Your task to perform on an android device: Do I have any events this weekend? Image 0: 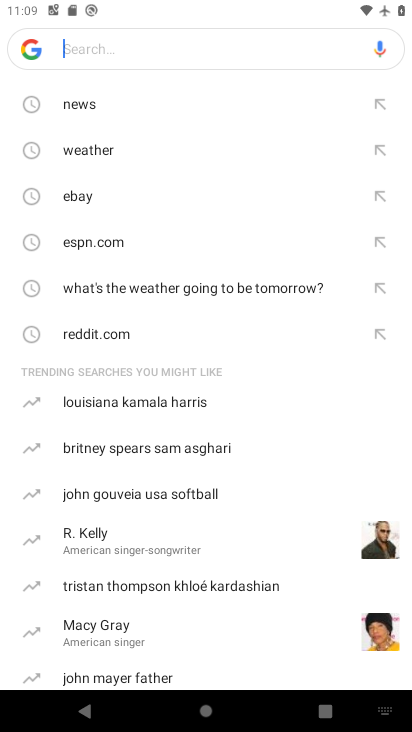
Step 0: press home button
Your task to perform on an android device: Do I have any events this weekend? Image 1: 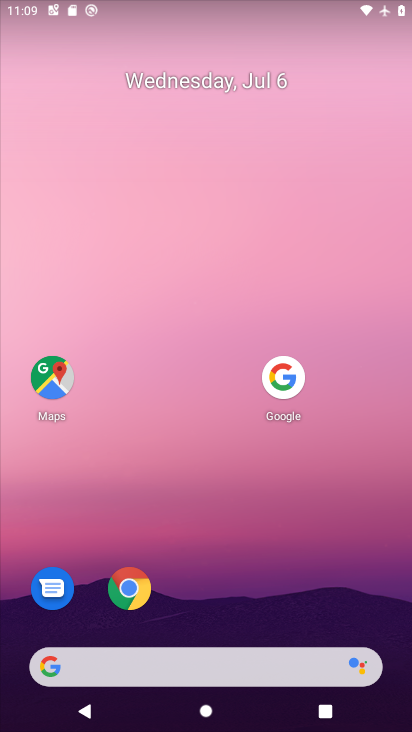
Step 1: drag from (206, 617) to (289, 48)
Your task to perform on an android device: Do I have any events this weekend? Image 2: 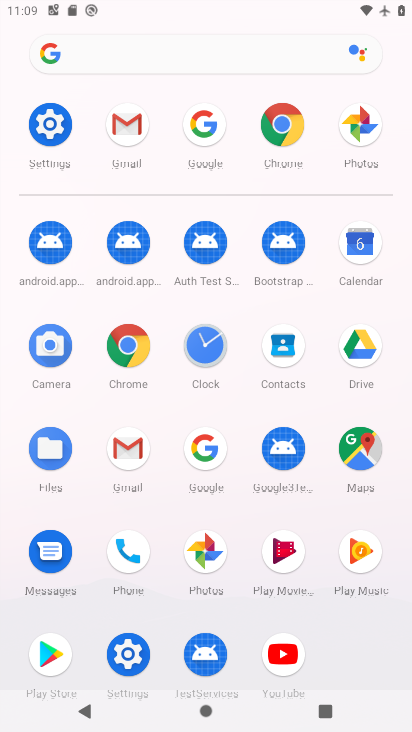
Step 2: click (355, 259)
Your task to perform on an android device: Do I have any events this weekend? Image 3: 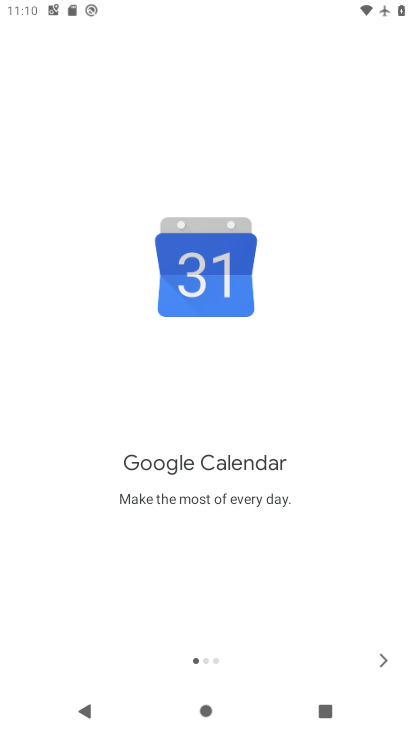
Step 3: click (383, 658)
Your task to perform on an android device: Do I have any events this weekend? Image 4: 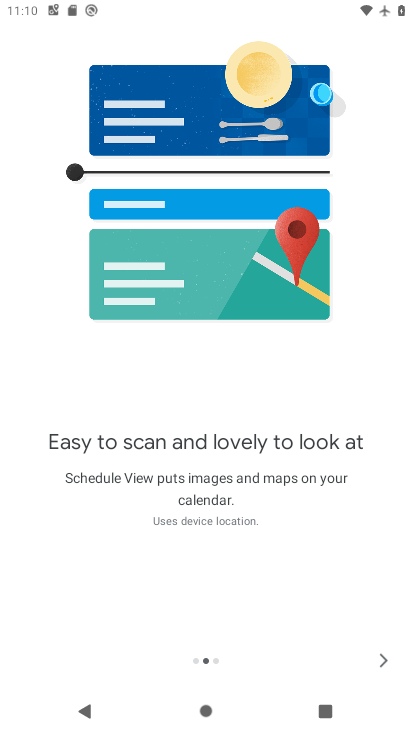
Step 4: click (383, 658)
Your task to perform on an android device: Do I have any events this weekend? Image 5: 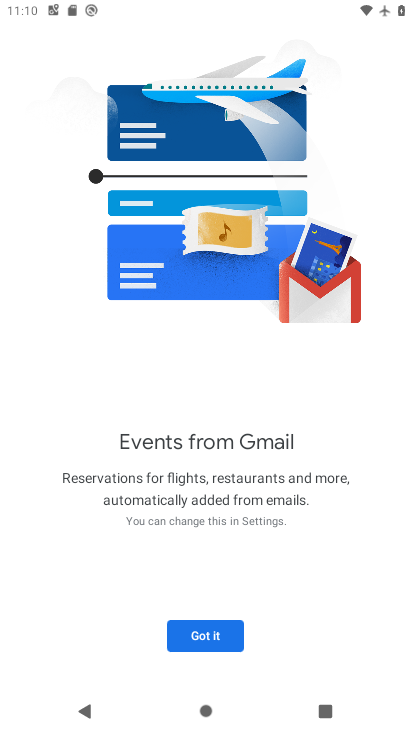
Step 5: click (219, 634)
Your task to perform on an android device: Do I have any events this weekend? Image 6: 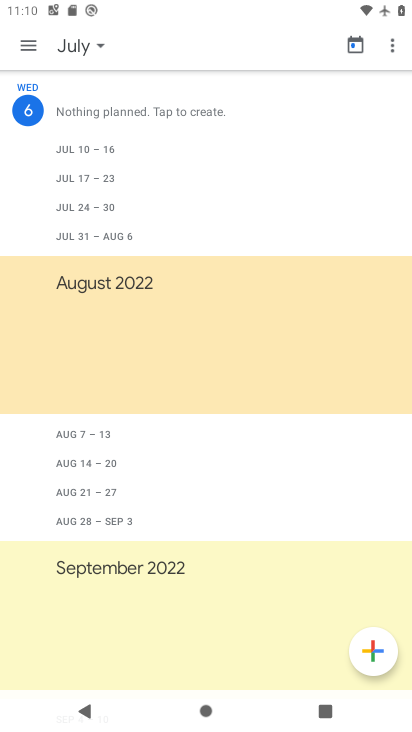
Step 6: click (80, 42)
Your task to perform on an android device: Do I have any events this weekend? Image 7: 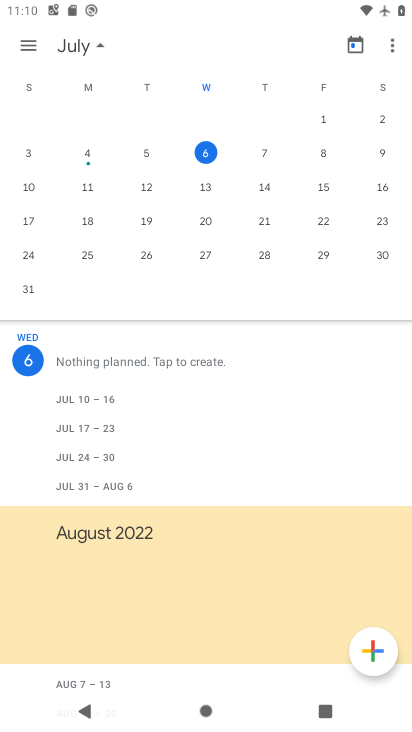
Step 7: click (381, 149)
Your task to perform on an android device: Do I have any events this weekend? Image 8: 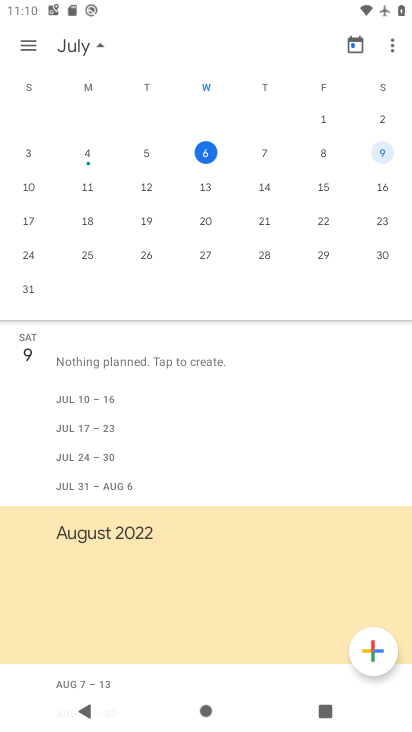
Step 8: click (25, 46)
Your task to perform on an android device: Do I have any events this weekend? Image 9: 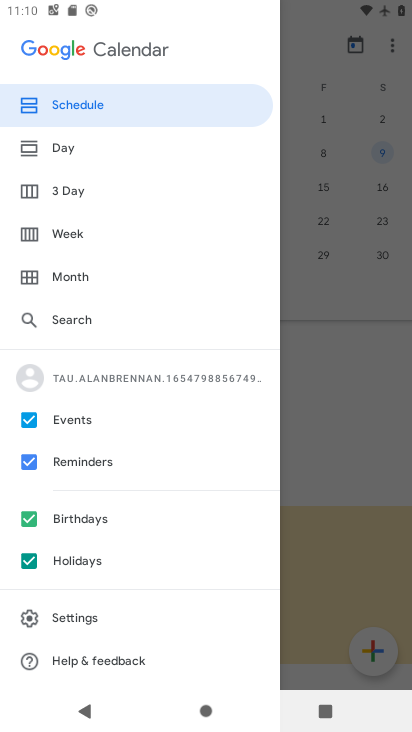
Step 9: click (59, 143)
Your task to perform on an android device: Do I have any events this weekend? Image 10: 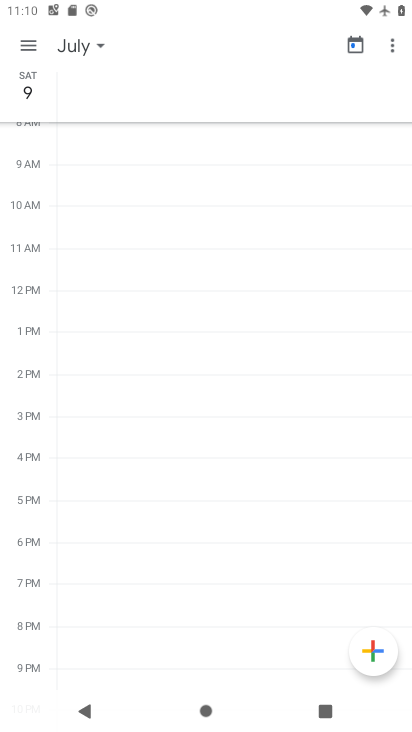
Step 10: click (30, 39)
Your task to perform on an android device: Do I have any events this weekend? Image 11: 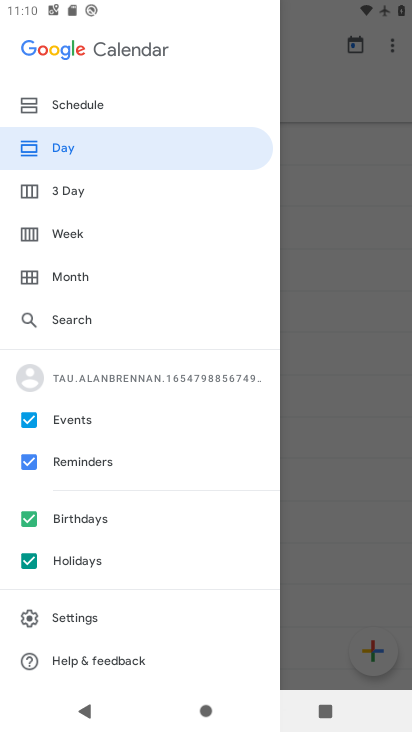
Step 11: click (93, 109)
Your task to perform on an android device: Do I have any events this weekend? Image 12: 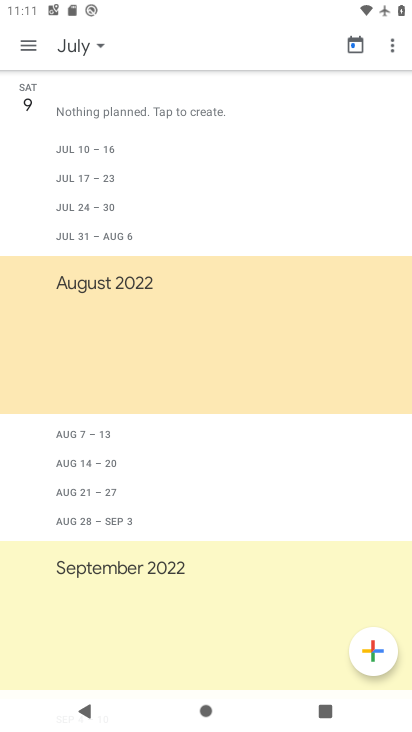
Step 12: task complete